Your task to perform on an android device: What's the weather going to be this weekend? Image 0: 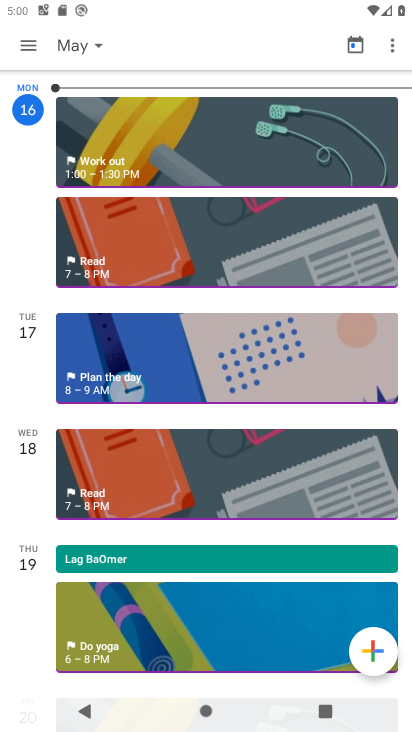
Step 0: press home button
Your task to perform on an android device: What's the weather going to be this weekend? Image 1: 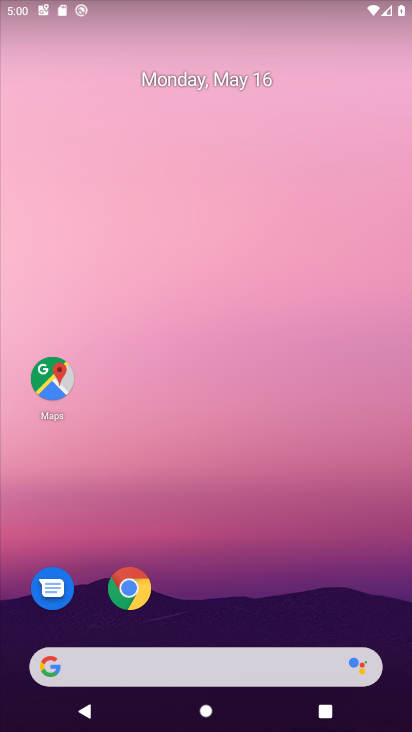
Step 1: drag from (262, 556) to (187, 12)
Your task to perform on an android device: What's the weather going to be this weekend? Image 2: 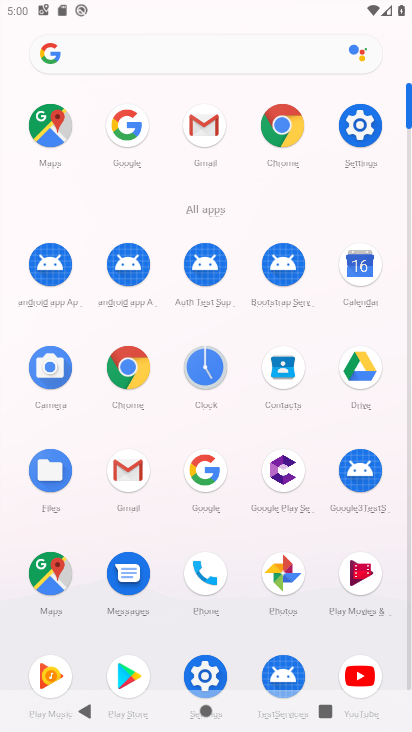
Step 2: click (205, 471)
Your task to perform on an android device: What's the weather going to be this weekend? Image 3: 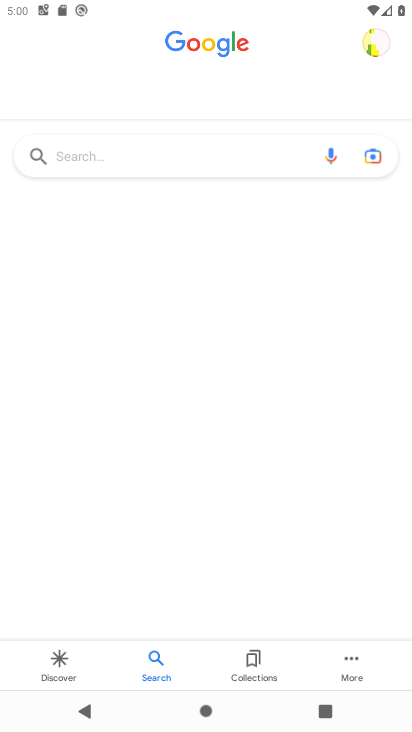
Step 3: click (158, 147)
Your task to perform on an android device: What's the weather going to be this weekend? Image 4: 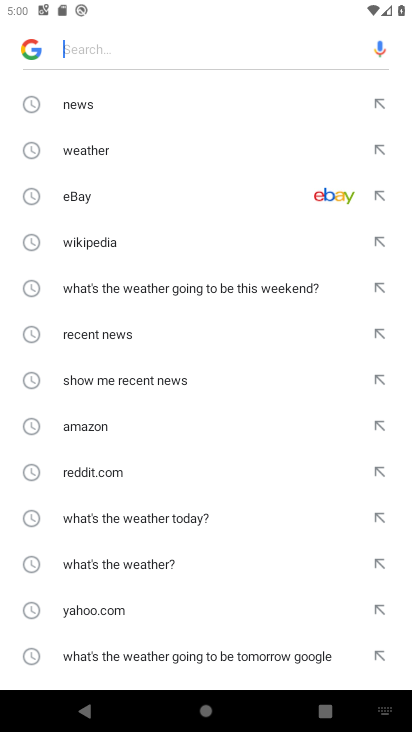
Step 4: click (98, 157)
Your task to perform on an android device: What's the weather going to be this weekend? Image 5: 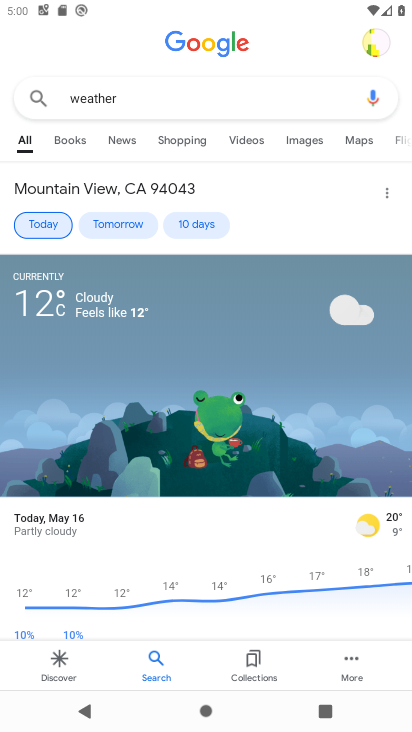
Step 5: click (200, 221)
Your task to perform on an android device: What's the weather going to be this weekend? Image 6: 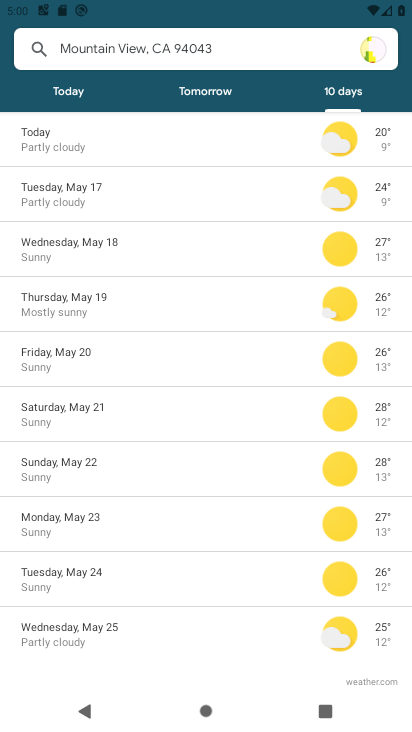
Step 6: task complete